Your task to perform on an android device: Open accessibility settings Image 0: 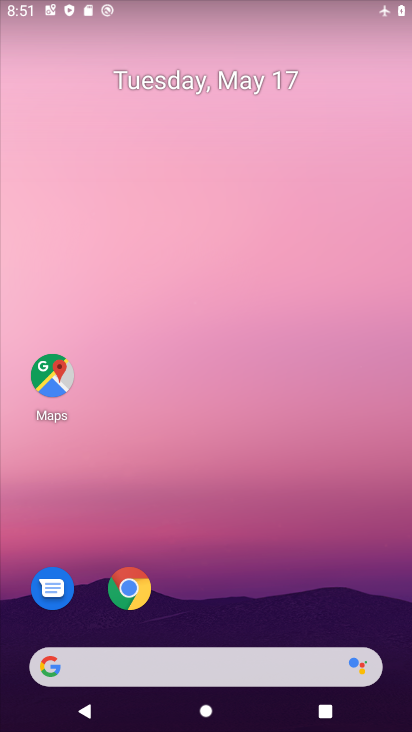
Step 0: drag from (405, 704) to (382, 306)
Your task to perform on an android device: Open accessibility settings Image 1: 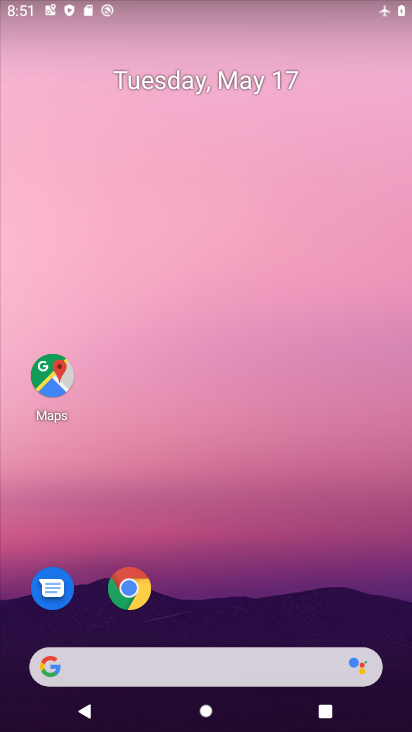
Step 1: drag from (392, 695) to (378, 332)
Your task to perform on an android device: Open accessibility settings Image 2: 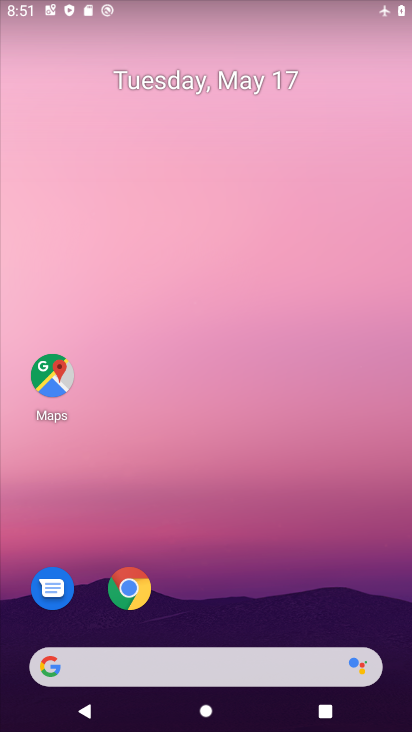
Step 2: drag from (394, 706) to (396, 277)
Your task to perform on an android device: Open accessibility settings Image 3: 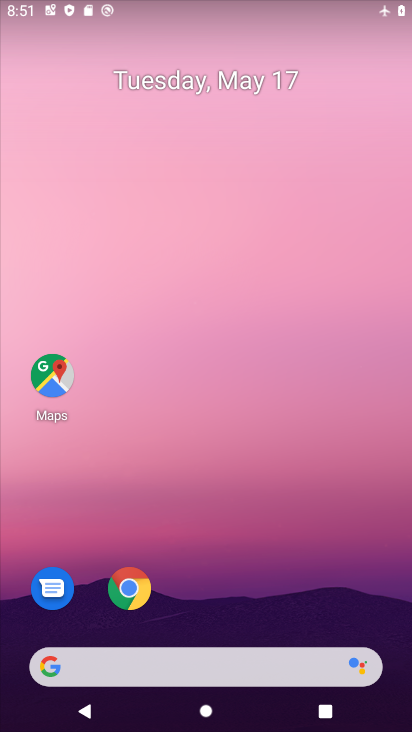
Step 3: drag from (400, 708) to (320, 200)
Your task to perform on an android device: Open accessibility settings Image 4: 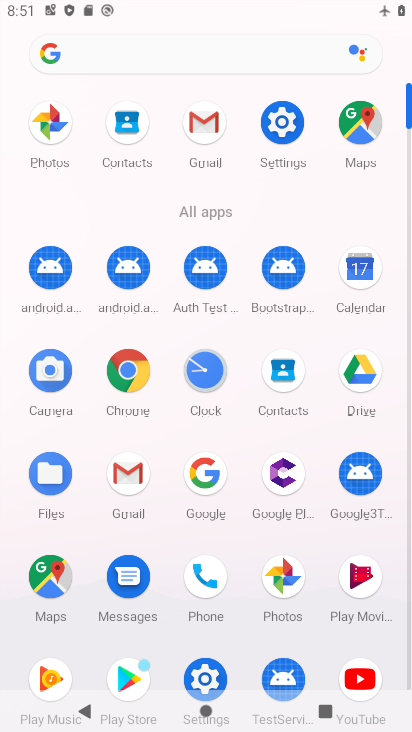
Step 4: click (201, 673)
Your task to perform on an android device: Open accessibility settings Image 5: 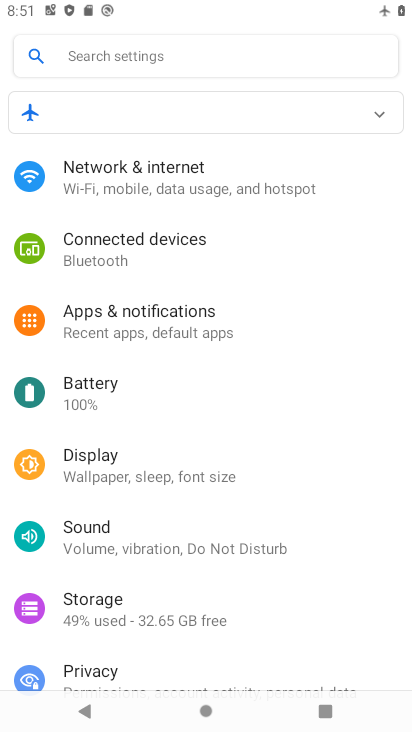
Step 5: drag from (363, 616) to (371, 349)
Your task to perform on an android device: Open accessibility settings Image 6: 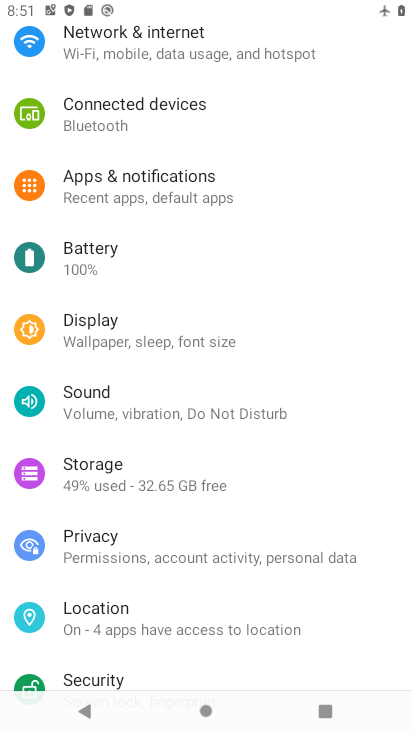
Step 6: drag from (358, 633) to (364, 389)
Your task to perform on an android device: Open accessibility settings Image 7: 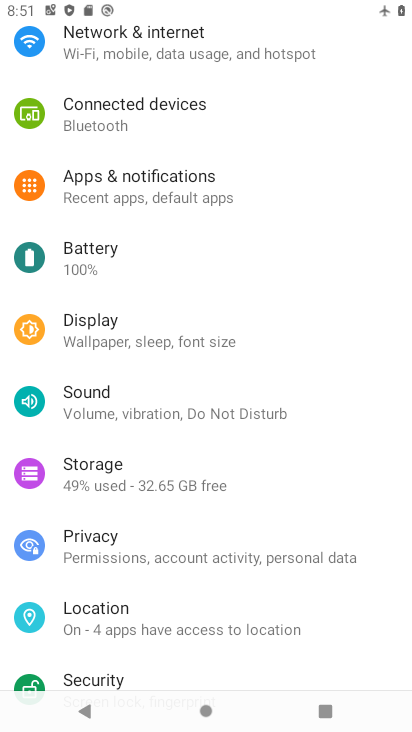
Step 7: drag from (378, 669) to (394, 307)
Your task to perform on an android device: Open accessibility settings Image 8: 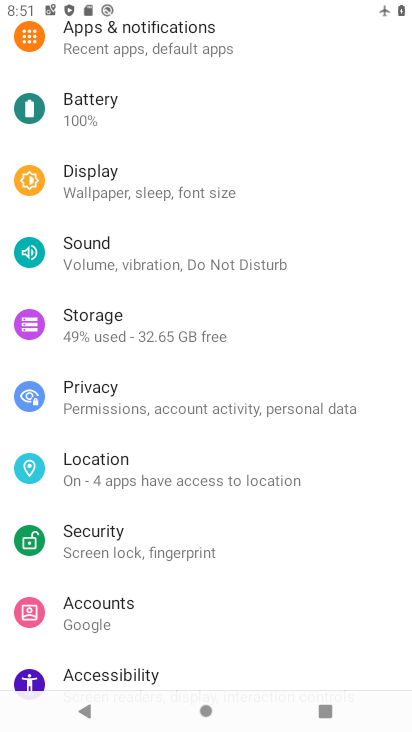
Step 8: click (82, 674)
Your task to perform on an android device: Open accessibility settings Image 9: 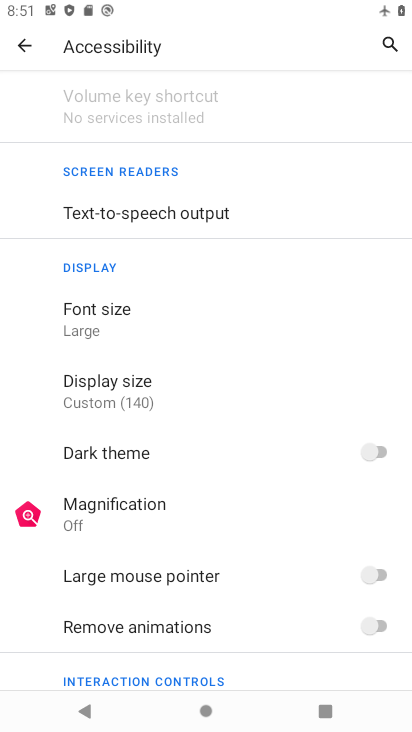
Step 9: task complete